Your task to perform on an android device: delete browsing data in the chrome app Image 0: 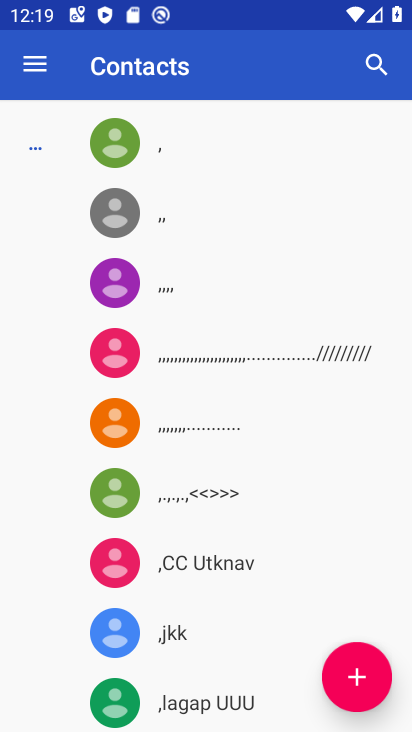
Step 0: press home button
Your task to perform on an android device: delete browsing data in the chrome app Image 1: 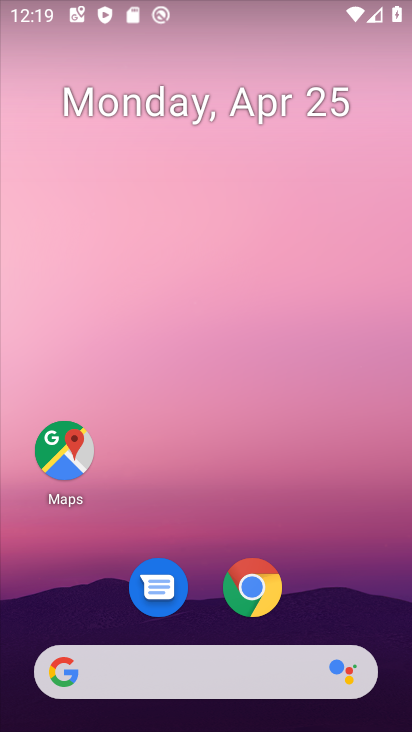
Step 1: click (260, 597)
Your task to perform on an android device: delete browsing data in the chrome app Image 2: 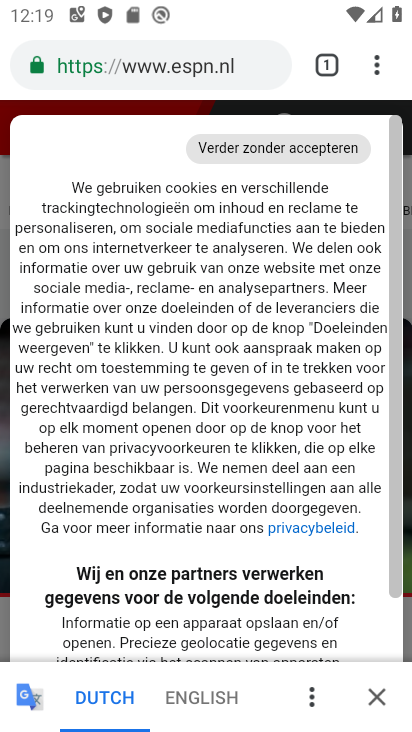
Step 2: click (379, 86)
Your task to perform on an android device: delete browsing data in the chrome app Image 3: 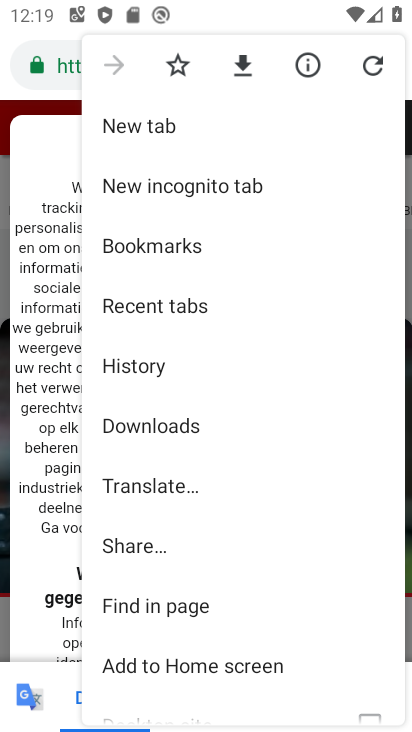
Step 3: click (214, 367)
Your task to perform on an android device: delete browsing data in the chrome app Image 4: 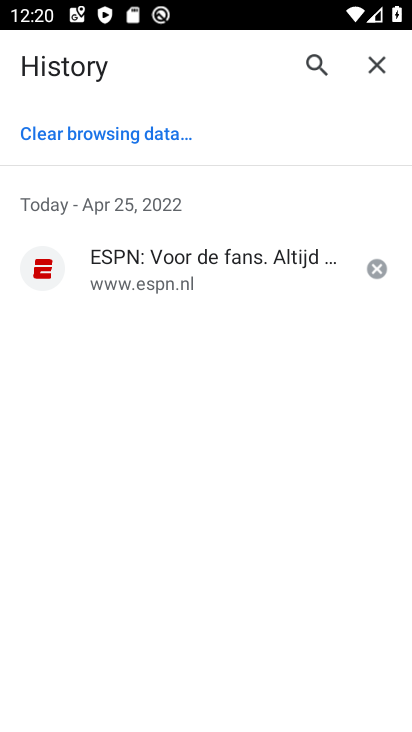
Step 4: click (142, 137)
Your task to perform on an android device: delete browsing data in the chrome app Image 5: 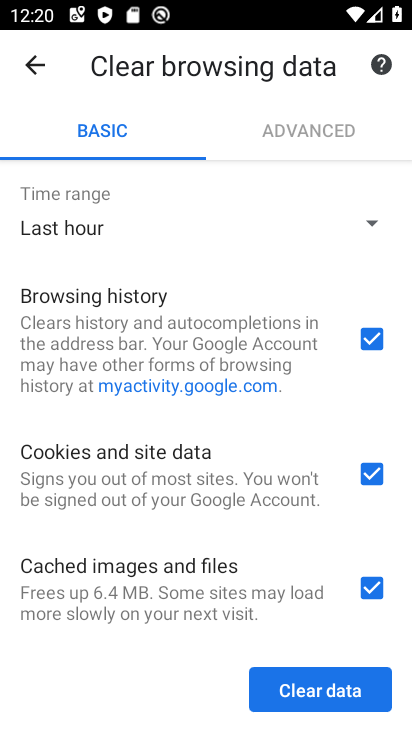
Step 5: click (367, 594)
Your task to perform on an android device: delete browsing data in the chrome app Image 6: 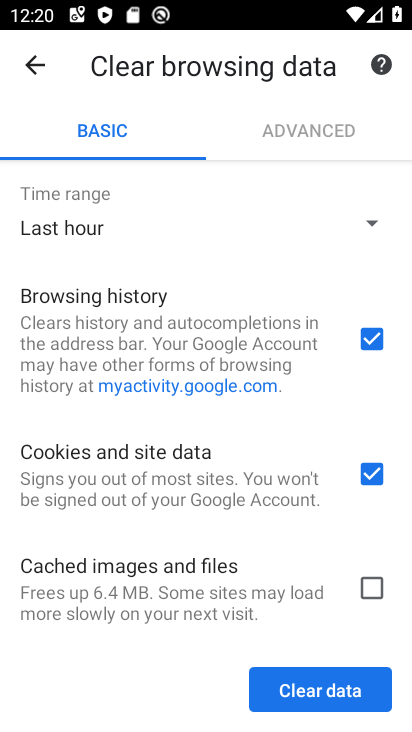
Step 6: click (374, 475)
Your task to perform on an android device: delete browsing data in the chrome app Image 7: 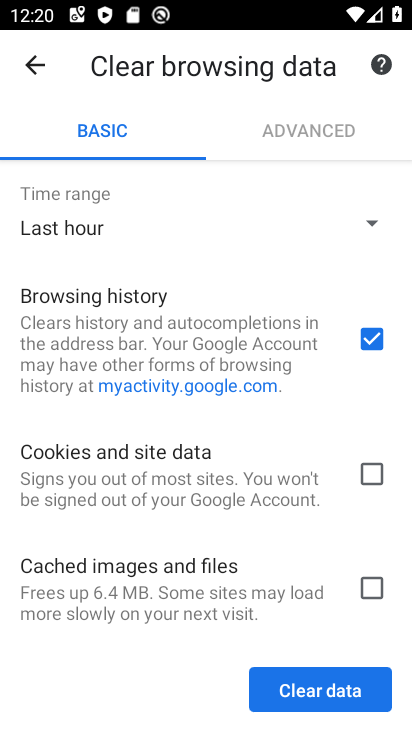
Step 7: click (363, 667)
Your task to perform on an android device: delete browsing data in the chrome app Image 8: 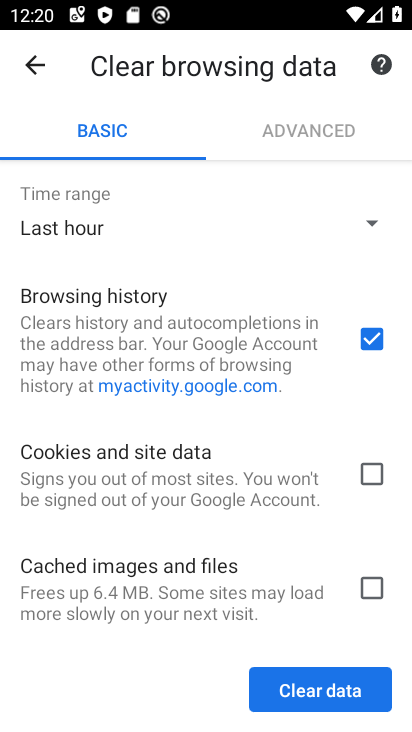
Step 8: click (363, 684)
Your task to perform on an android device: delete browsing data in the chrome app Image 9: 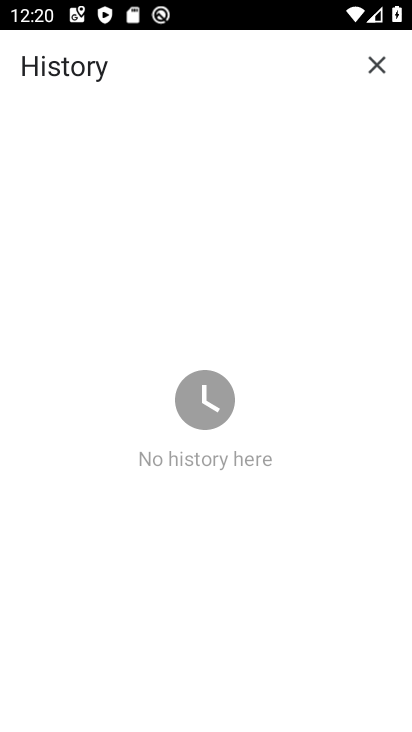
Step 9: task complete